Your task to perform on an android device: check out phone information Image 0: 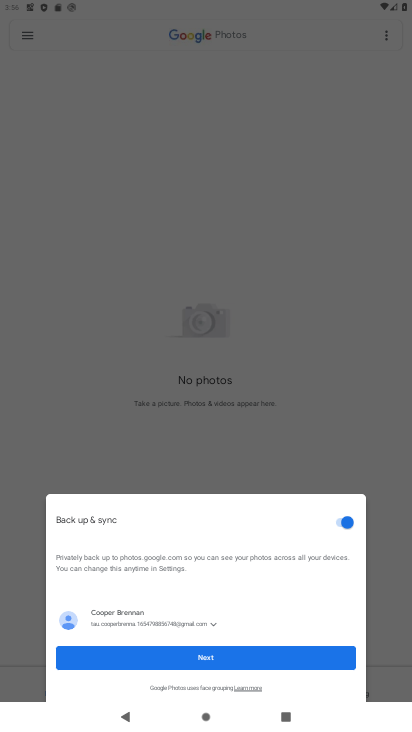
Step 0: press home button
Your task to perform on an android device: check out phone information Image 1: 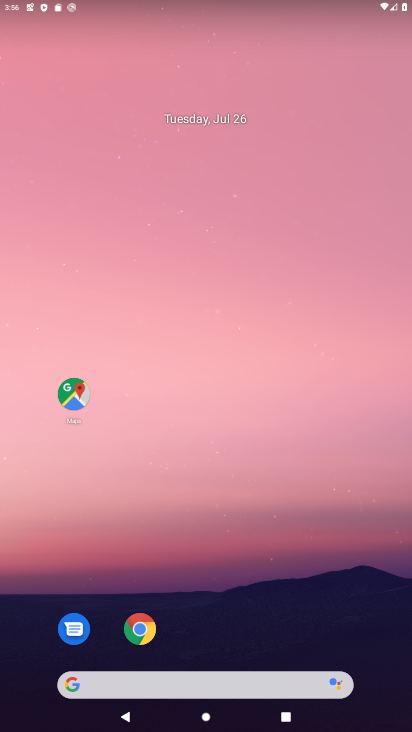
Step 1: drag from (342, 568) to (247, 83)
Your task to perform on an android device: check out phone information Image 2: 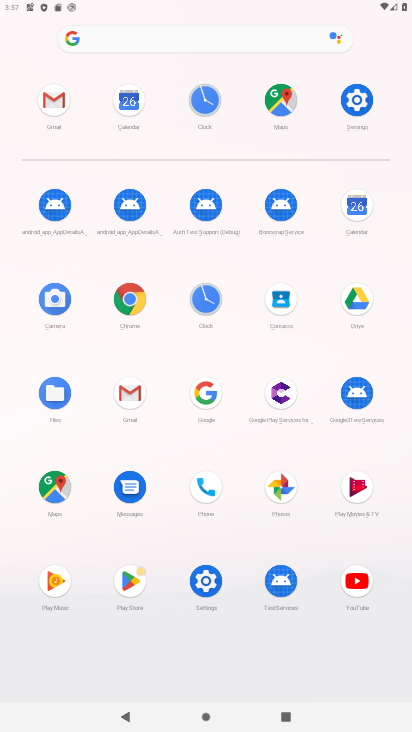
Step 2: click (210, 584)
Your task to perform on an android device: check out phone information Image 3: 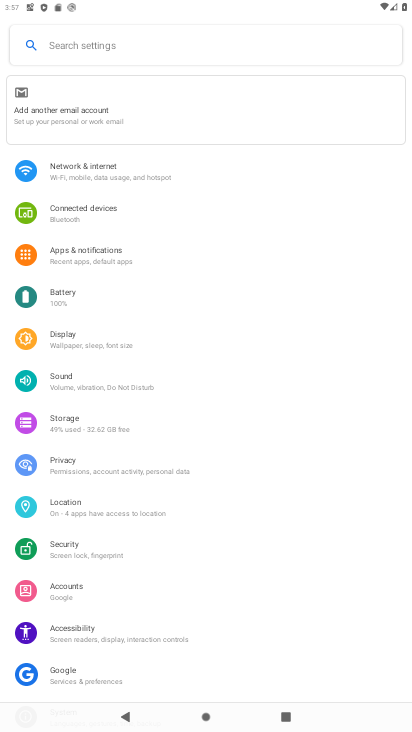
Step 3: drag from (183, 584) to (123, 255)
Your task to perform on an android device: check out phone information Image 4: 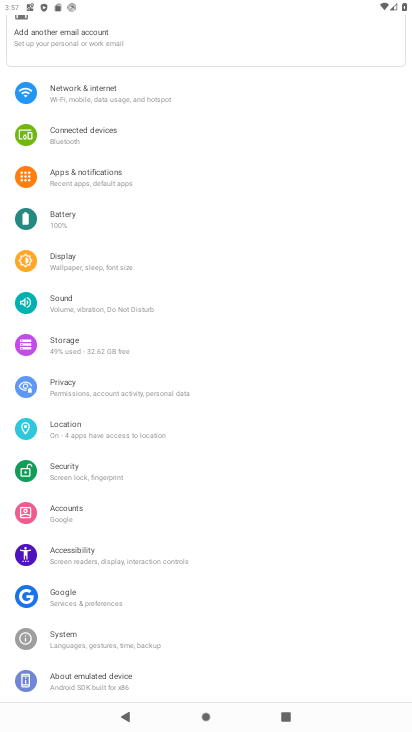
Step 4: click (135, 682)
Your task to perform on an android device: check out phone information Image 5: 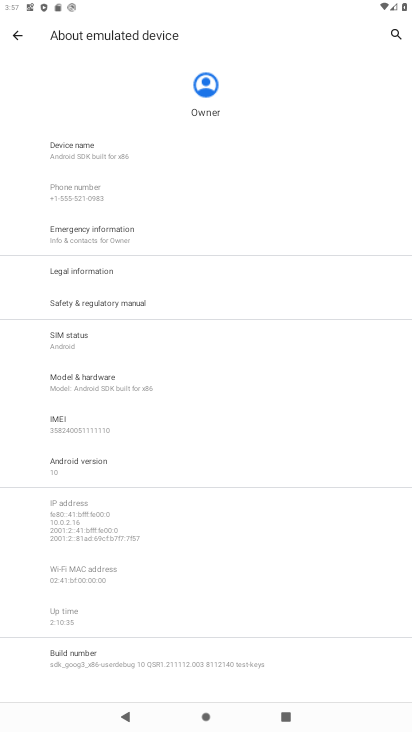
Step 5: task complete